Your task to perform on an android device: toggle improve location accuracy Image 0: 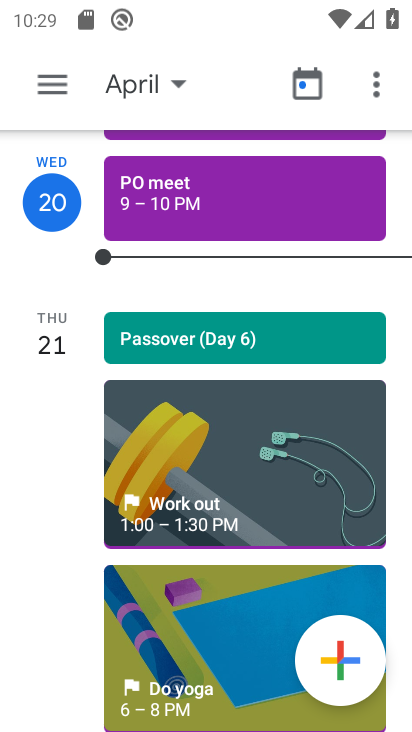
Step 0: drag from (355, 443) to (359, 167)
Your task to perform on an android device: toggle improve location accuracy Image 1: 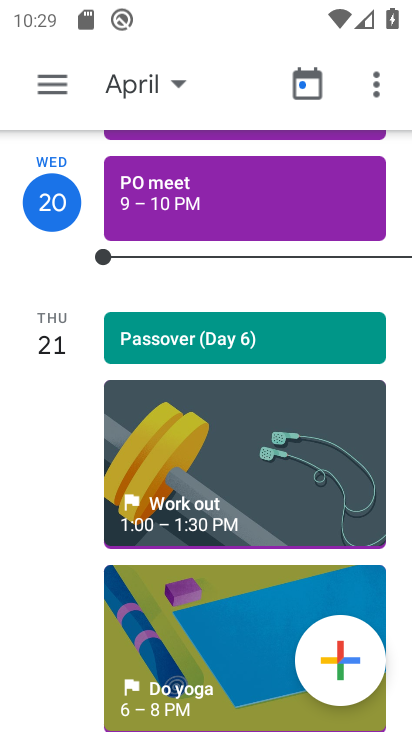
Step 1: press home button
Your task to perform on an android device: toggle improve location accuracy Image 2: 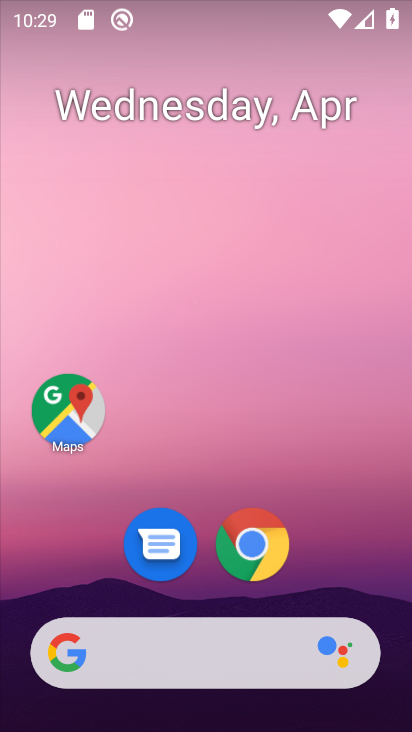
Step 2: drag from (369, 308) to (354, 67)
Your task to perform on an android device: toggle improve location accuracy Image 3: 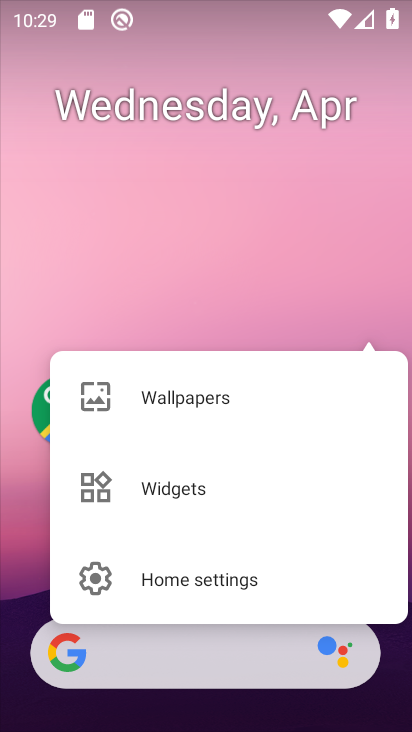
Step 3: drag from (313, 276) to (313, 1)
Your task to perform on an android device: toggle improve location accuracy Image 4: 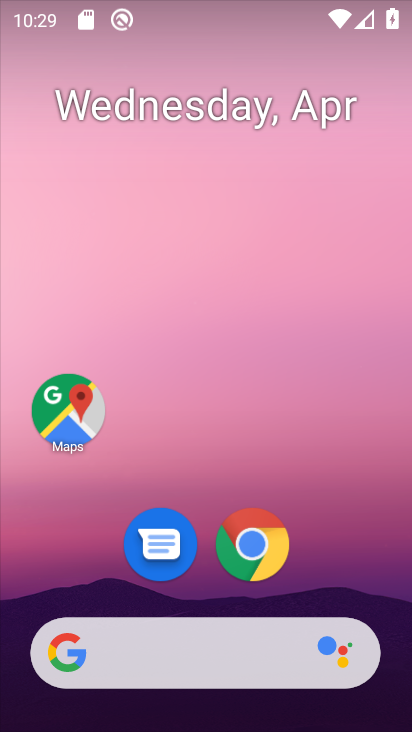
Step 4: click (233, 233)
Your task to perform on an android device: toggle improve location accuracy Image 5: 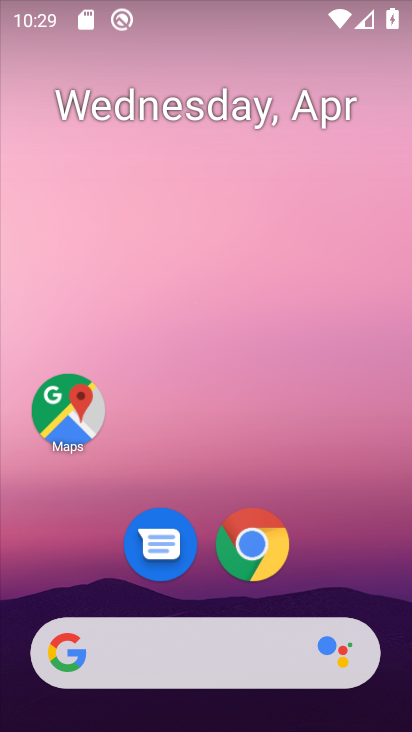
Step 5: drag from (389, 596) to (339, 52)
Your task to perform on an android device: toggle improve location accuracy Image 6: 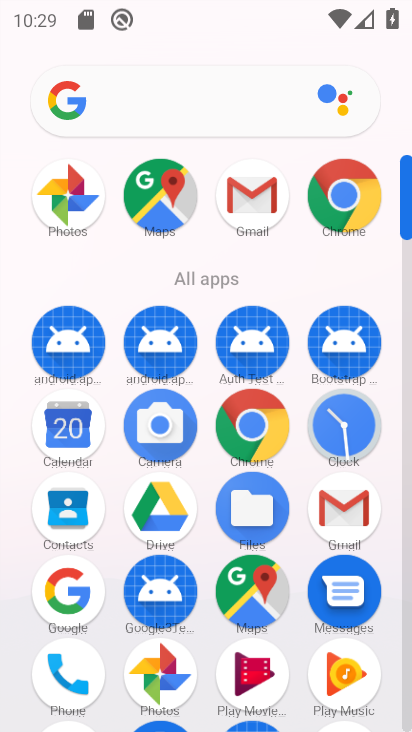
Step 6: click (405, 595)
Your task to perform on an android device: toggle improve location accuracy Image 7: 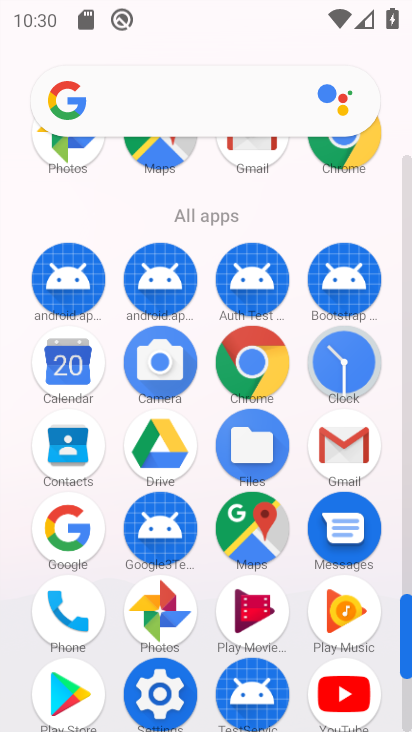
Step 7: click (150, 686)
Your task to perform on an android device: toggle improve location accuracy Image 8: 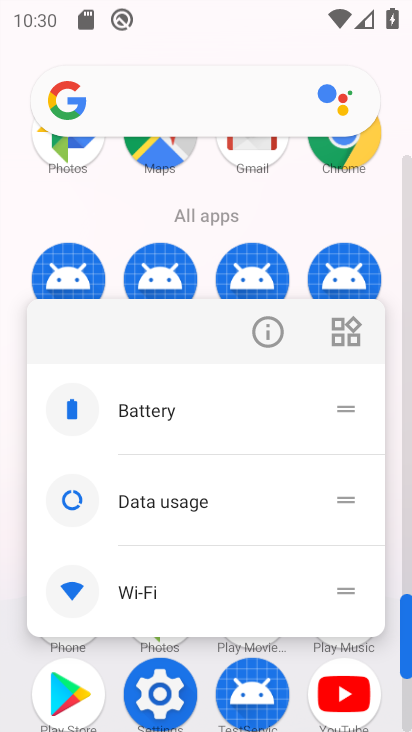
Step 8: click (162, 696)
Your task to perform on an android device: toggle improve location accuracy Image 9: 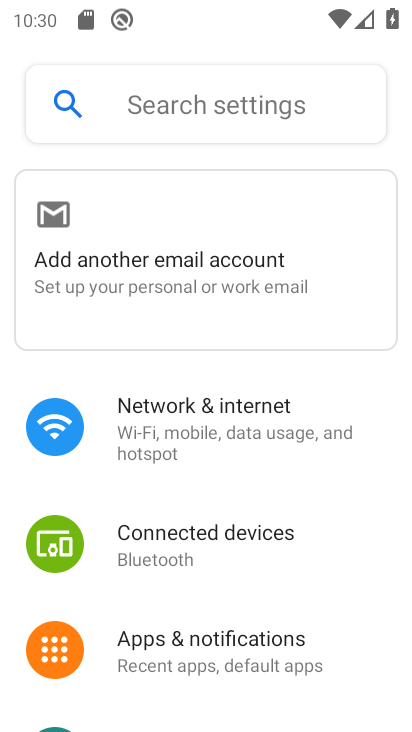
Step 9: drag from (285, 553) to (307, 184)
Your task to perform on an android device: toggle improve location accuracy Image 10: 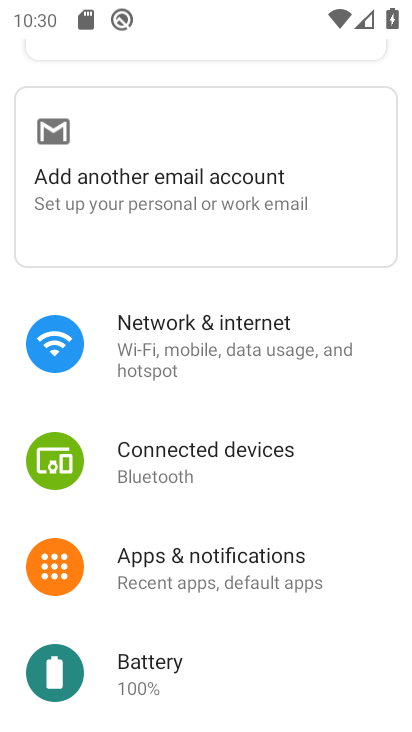
Step 10: drag from (237, 395) to (250, 191)
Your task to perform on an android device: toggle improve location accuracy Image 11: 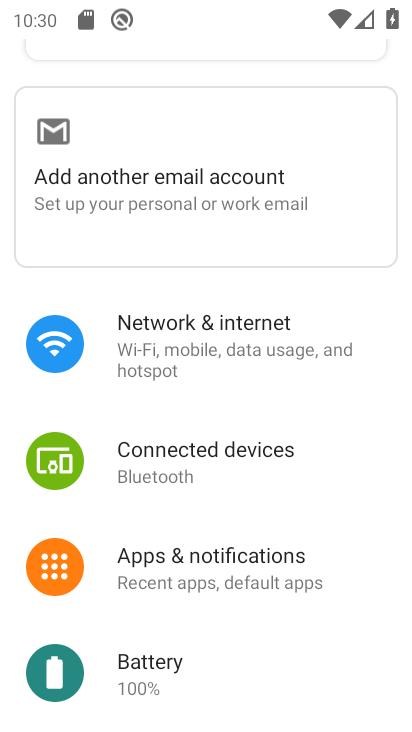
Step 11: drag from (234, 593) to (253, 141)
Your task to perform on an android device: toggle improve location accuracy Image 12: 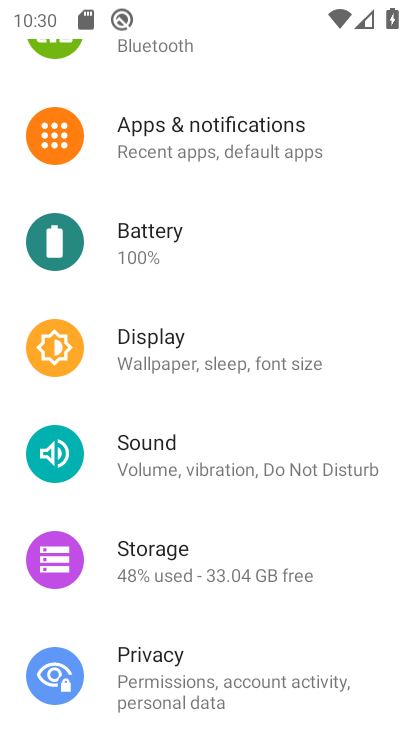
Step 12: drag from (213, 206) to (197, 280)
Your task to perform on an android device: toggle improve location accuracy Image 13: 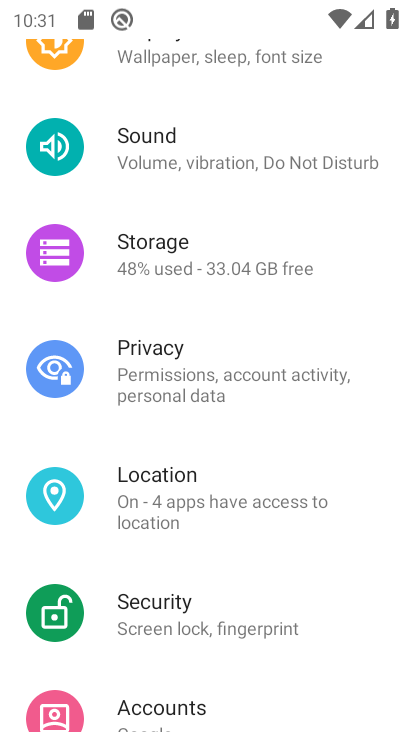
Step 13: click (311, 479)
Your task to perform on an android device: toggle improve location accuracy Image 14: 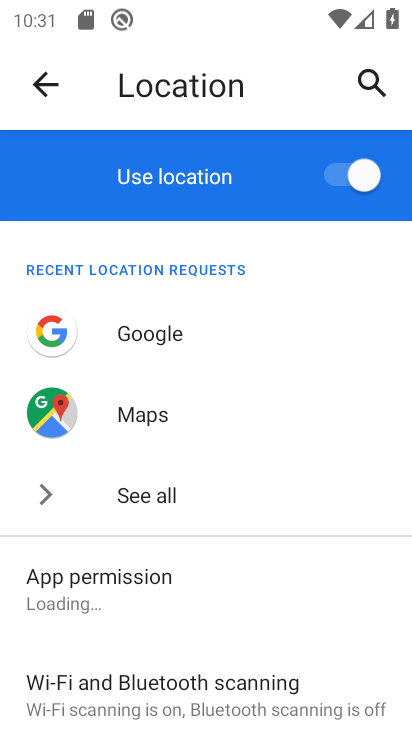
Step 14: drag from (294, 671) to (211, 41)
Your task to perform on an android device: toggle improve location accuracy Image 15: 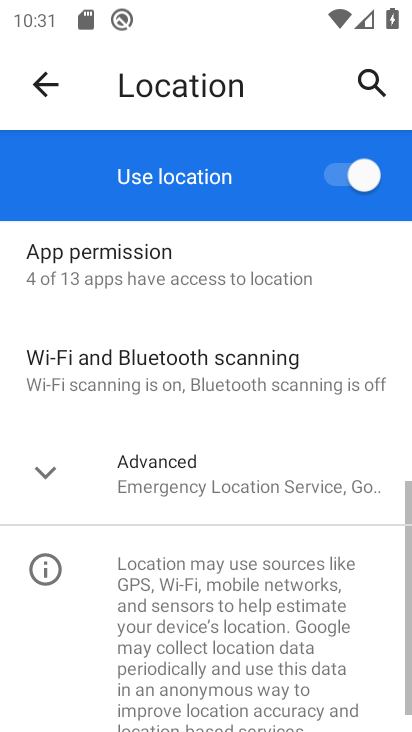
Step 15: click (188, 464)
Your task to perform on an android device: toggle improve location accuracy Image 16: 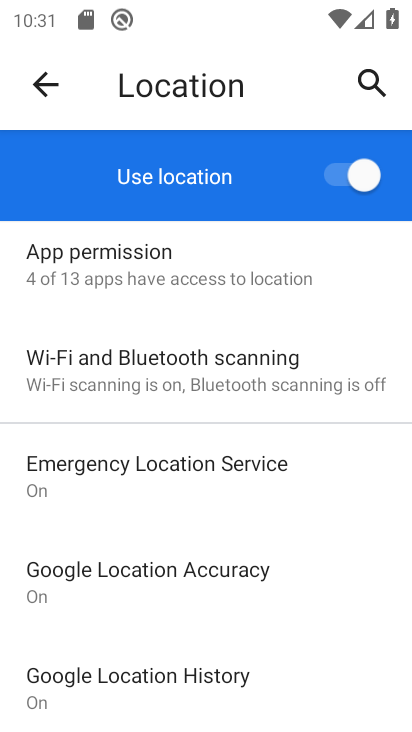
Step 16: click (137, 574)
Your task to perform on an android device: toggle improve location accuracy Image 17: 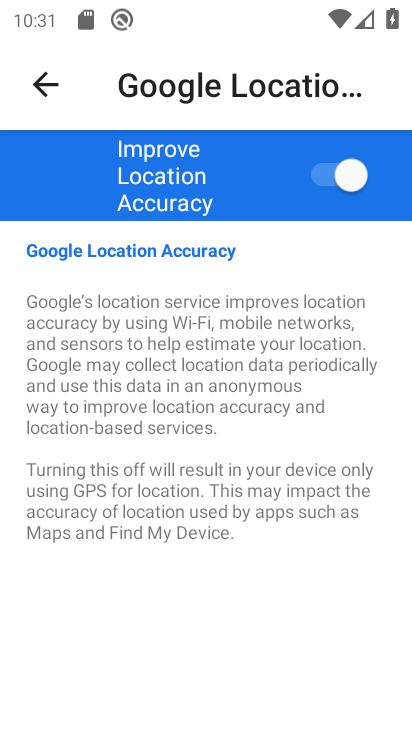
Step 17: click (336, 207)
Your task to perform on an android device: toggle improve location accuracy Image 18: 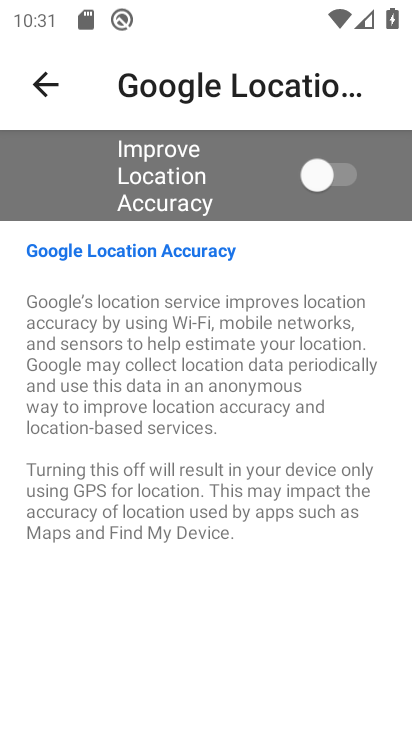
Step 18: task complete